Your task to perform on an android device: Go to accessibility settings Image 0: 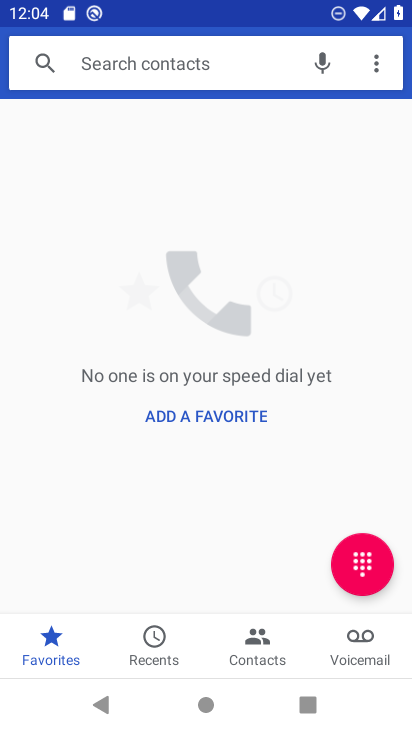
Step 0: press home button
Your task to perform on an android device: Go to accessibility settings Image 1: 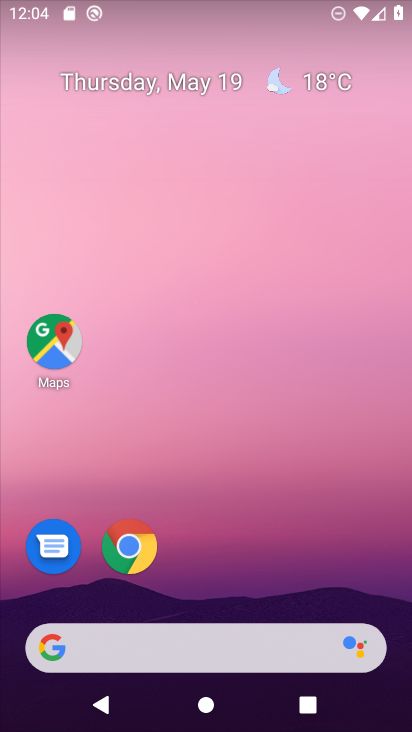
Step 1: drag from (249, 714) to (254, 96)
Your task to perform on an android device: Go to accessibility settings Image 2: 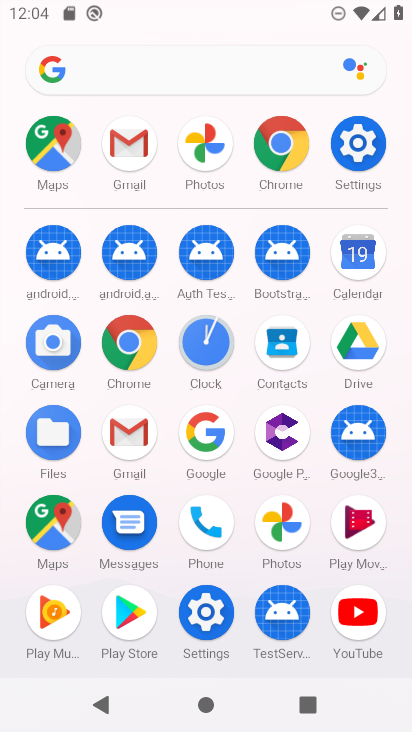
Step 2: click (350, 141)
Your task to perform on an android device: Go to accessibility settings Image 3: 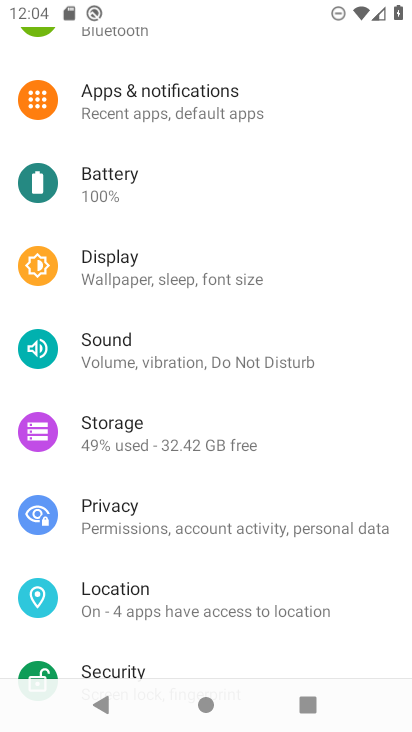
Step 3: drag from (213, 605) to (212, 268)
Your task to perform on an android device: Go to accessibility settings Image 4: 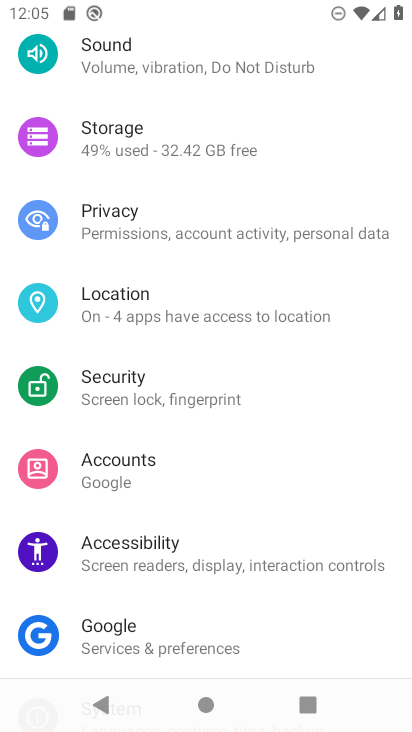
Step 4: click (148, 552)
Your task to perform on an android device: Go to accessibility settings Image 5: 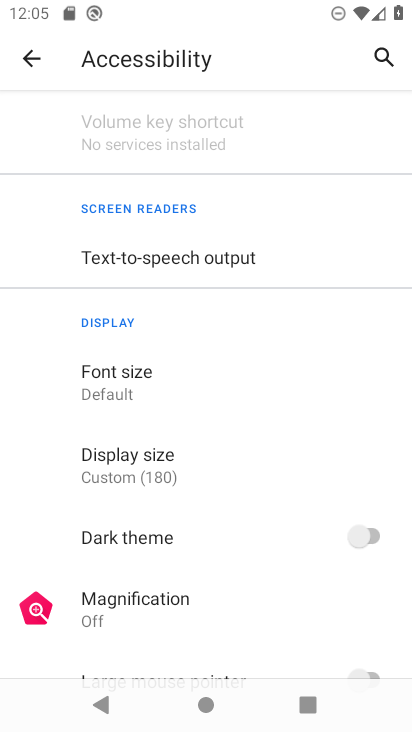
Step 5: task complete